Your task to perform on an android device: Search for "alienware aurora" on walmart, select the first entry, add it to the cart, then select checkout. Image 0: 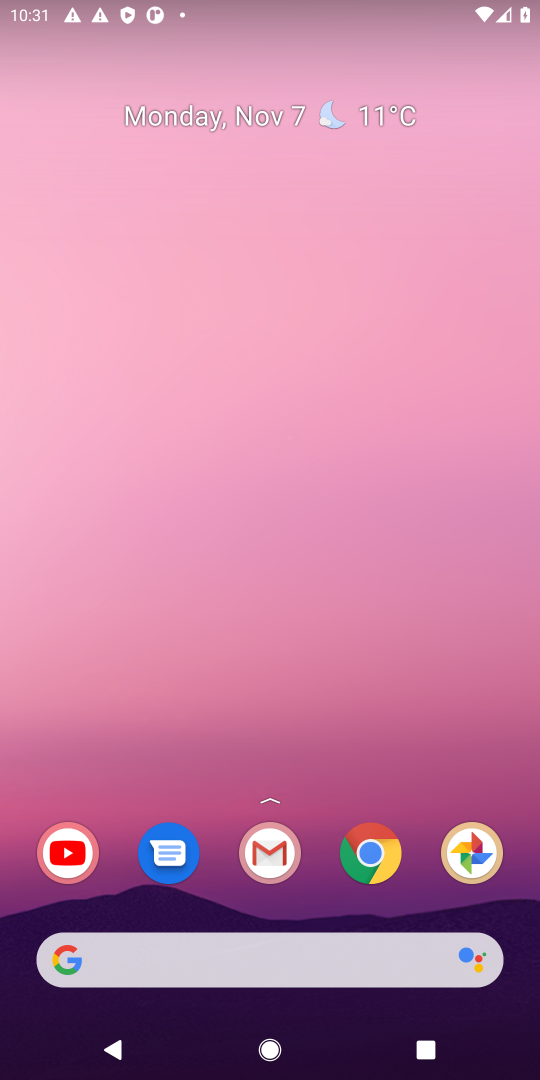
Step 0: click (174, 944)
Your task to perform on an android device: Search for "alienware aurora" on walmart, select the first entry, add it to the cart, then select checkout. Image 1: 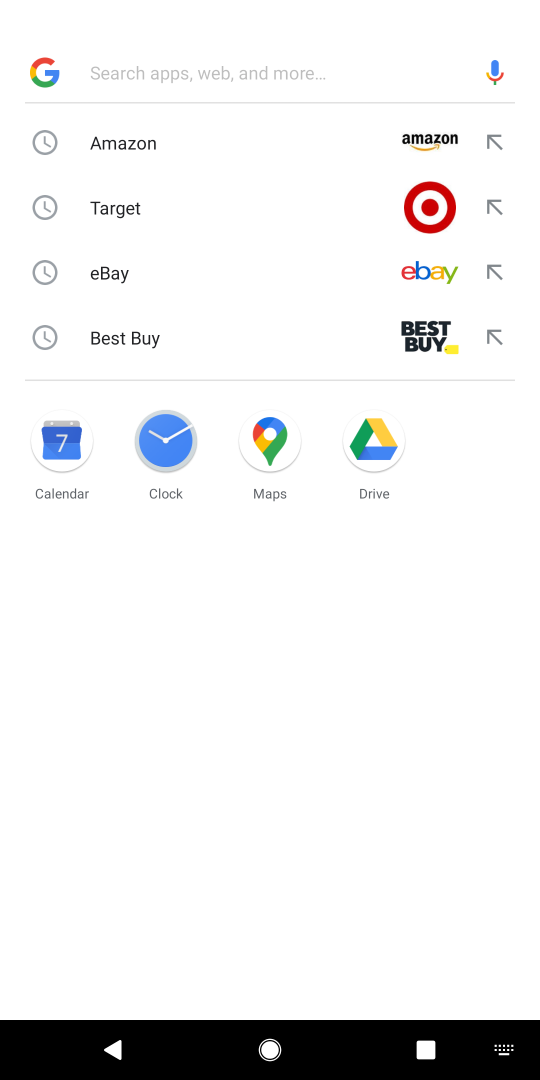
Step 1: type "walmaert"
Your task to perform on an android device: Search for "alienware aurora" on walmart, select the first entry, add it to the cart, then select checkout. Image 2: 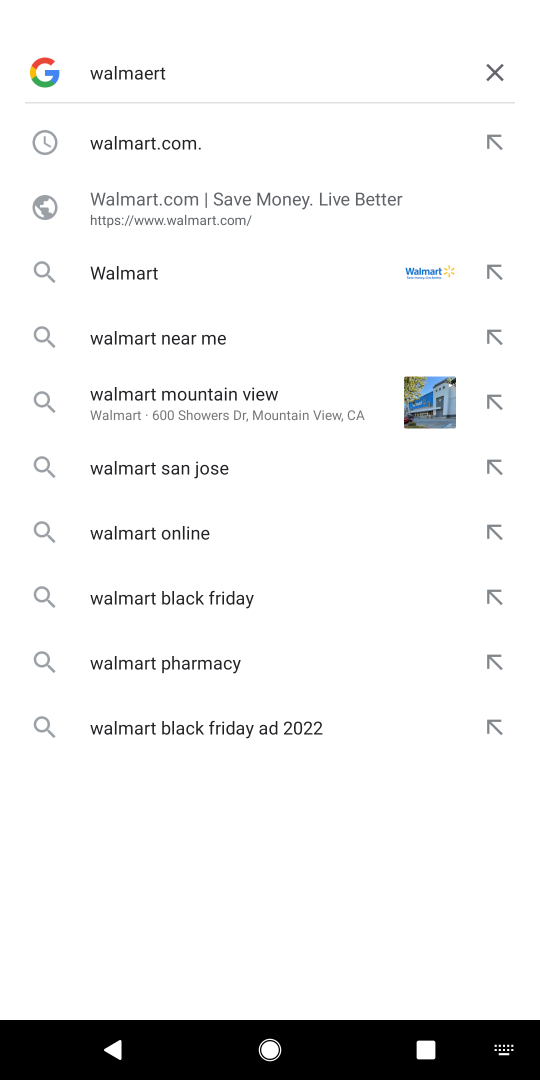
Step 2: click (139, 259)
Your task to perform on an android device: Search for "alienware aurora" on walmart, select the first entry, add it to the cart, then select checkout. Image 3: 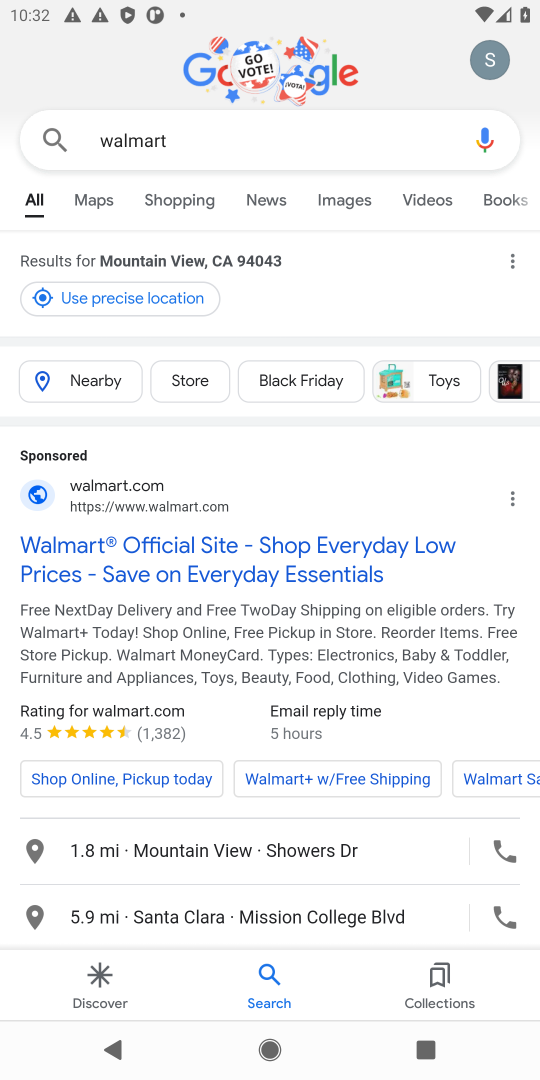
Step 3: click (101, 574)
Your task to perform on an android device: Search for "alienware aurora" on walmart, select the first entry, add it to the cart, then select checkout. Image 4: 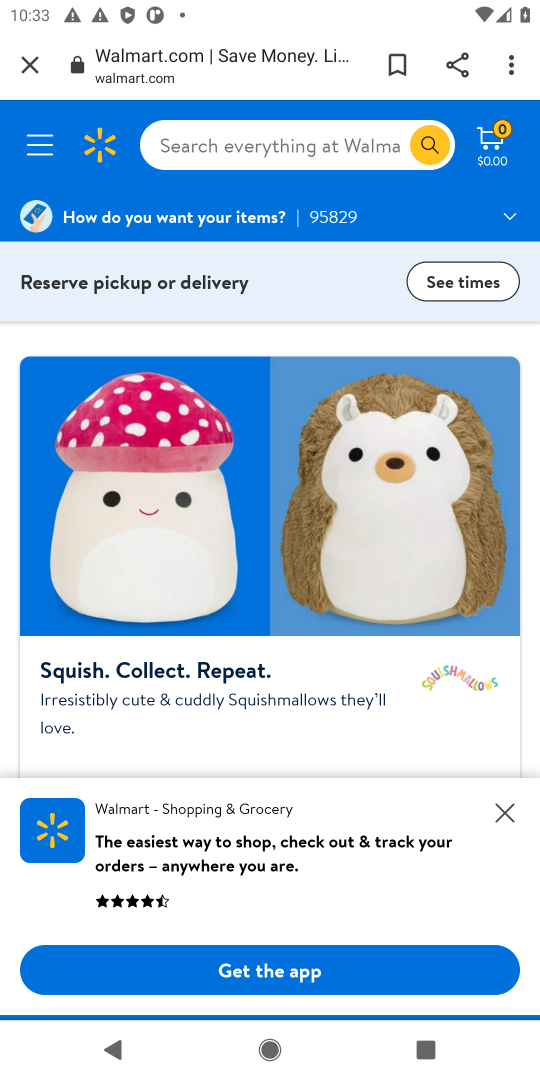
Step 4: task complete